Your task to perform on an android device: find which apps use the phone's location Image 0: 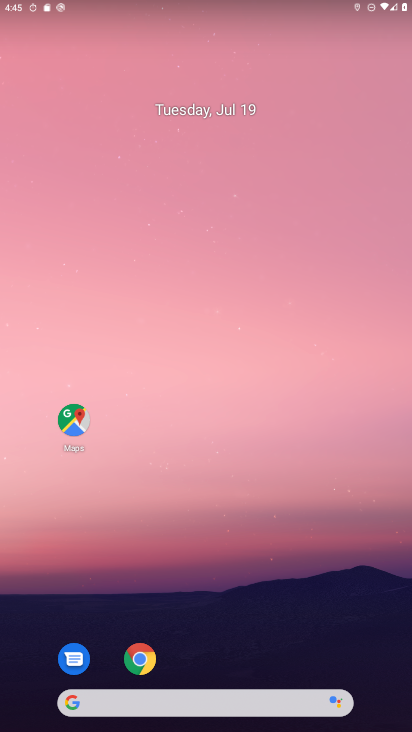
Step 0: drag from (348, 475) to (376, 440)
Your task to perform on an android device: find which apps use the phone's location Image 1: 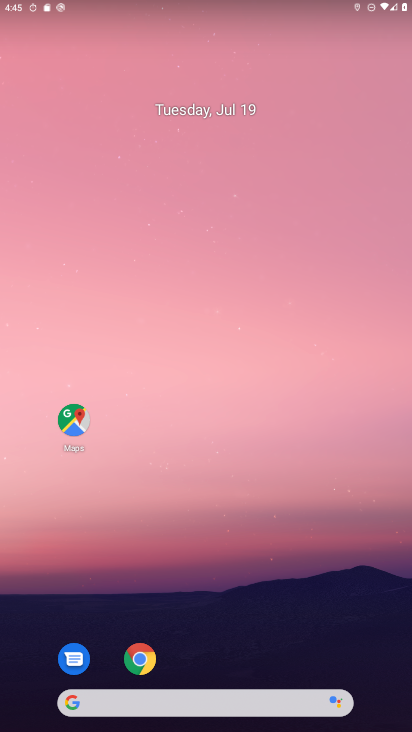
Step 1: drag from (220, 558) to (332, 1)
Your task to perform on an android device: find which apps use the phone's location Image 2: 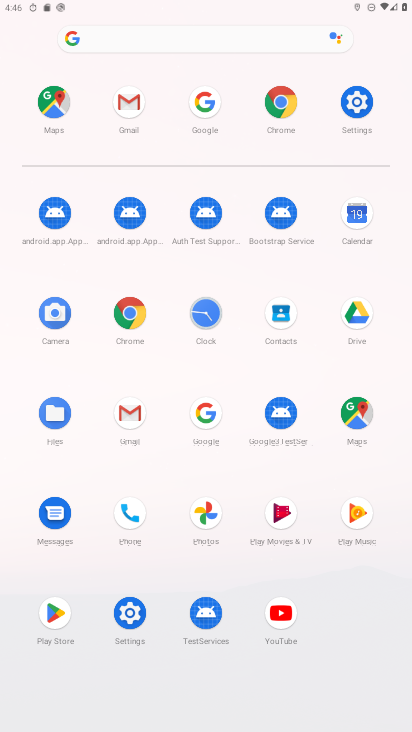
Step 2: click (364, 86)
Your task to perform on an android device: find which apps use the phone's location Image 3: 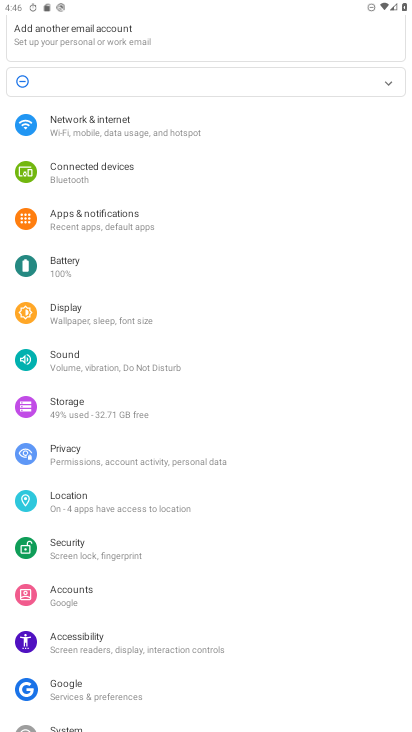
Step 3: drag from (109, 470) to (186, 60)
Your task to perform on an android device: find which apps use the phone's location Image 4: 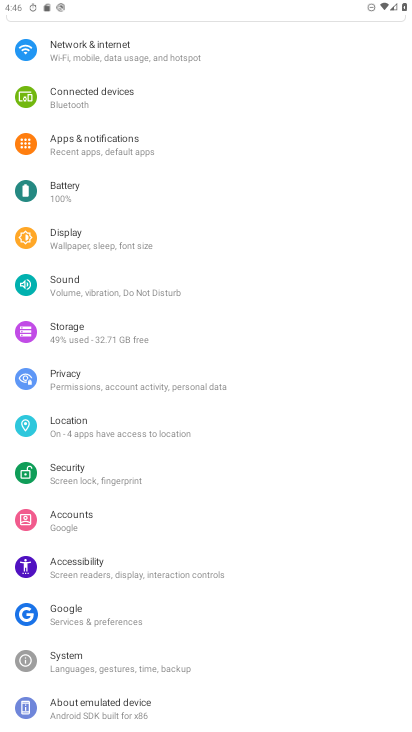
Step 4: click (96, 144)
Your task to perform on an android device: find which apps use the phone's location Image 5: 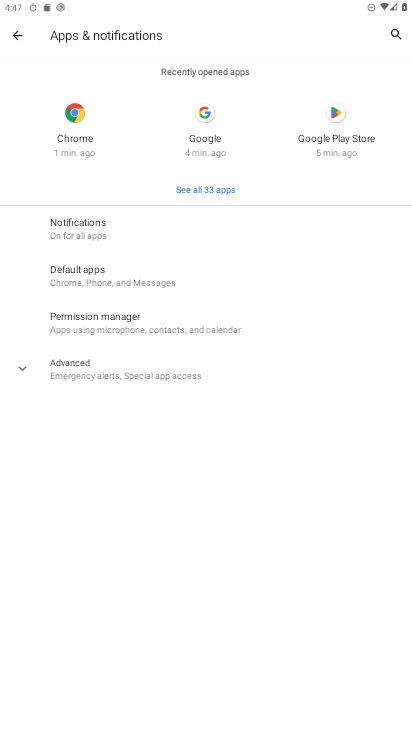
Step 5: click (99, 373)
Your task to perform on an android device: find which apps use the phone's location Image 6: 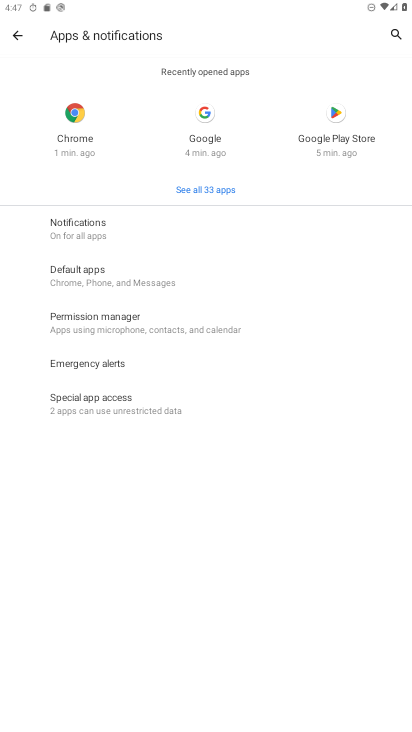
Step 6: click (74, 319)
Your task to perform on an android device: find which apps use the phone's location Image 7: 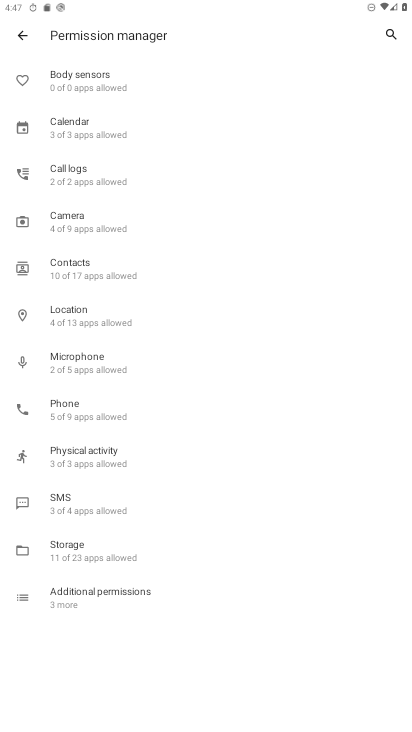
Step 7: task complete